Your task to perform on an android device: Open Youtube and go to the subscriptions tab Image 0: 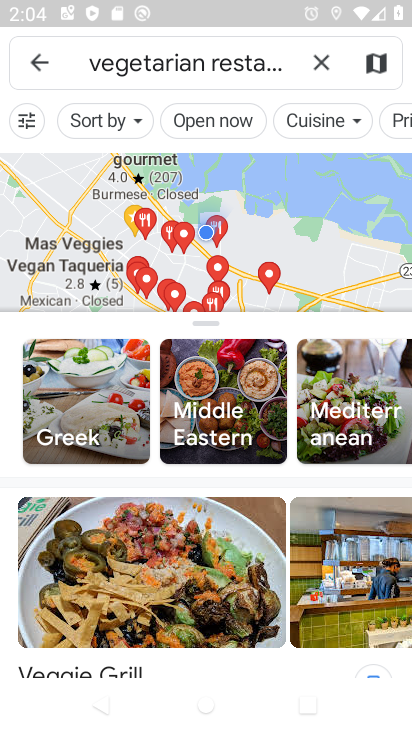
Step 0: press home button
Your task to perform on an android device: Open Youtube and go to the subscriptions tab Image 1: 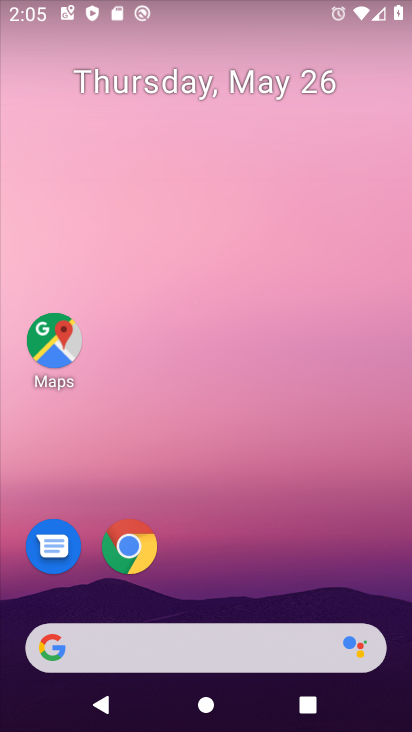
Step 1: drag from (402, 621) to (322, 118)
Your task to perform on an android device: Open Youtube and go to the subscriptions tab Image 2: 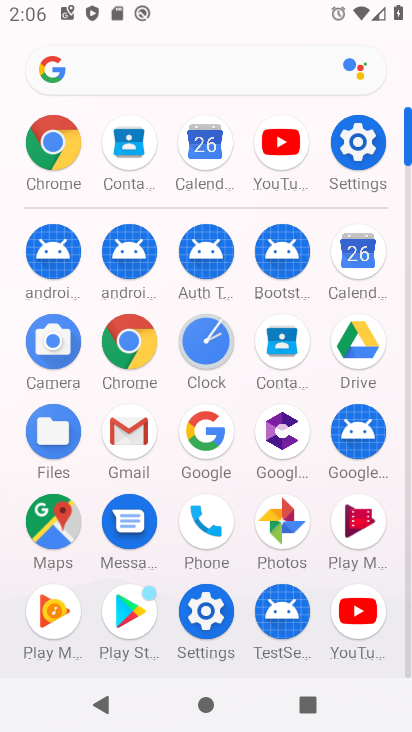
Step 2: click (360, 626)
Your task to perform on an android device: Open Youtube and go to the subscriptions tab Image 3: 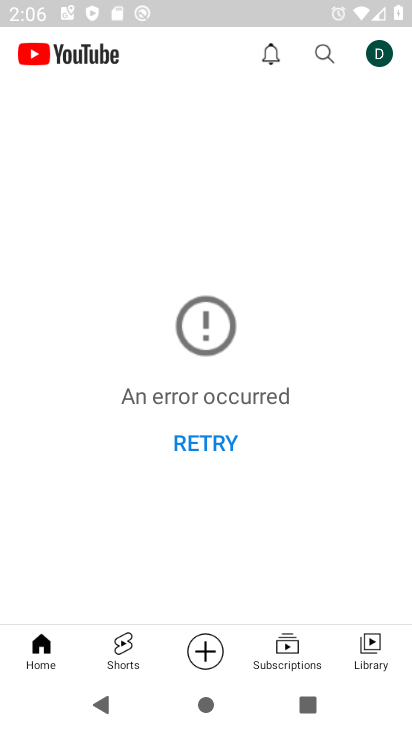
Step 3: click (291, 641)
Your task to perform on an android device: Open Youtube and go to the subscriptions tab Image 4: 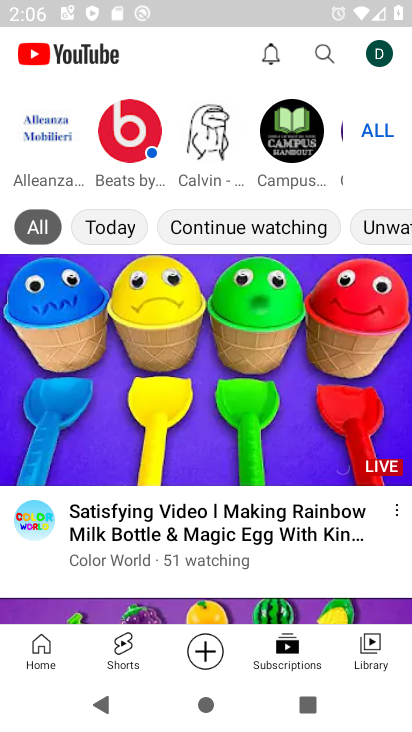
Step 4: task complete